Your task to perform on an android device: turn on bluetooth scan Image 0: 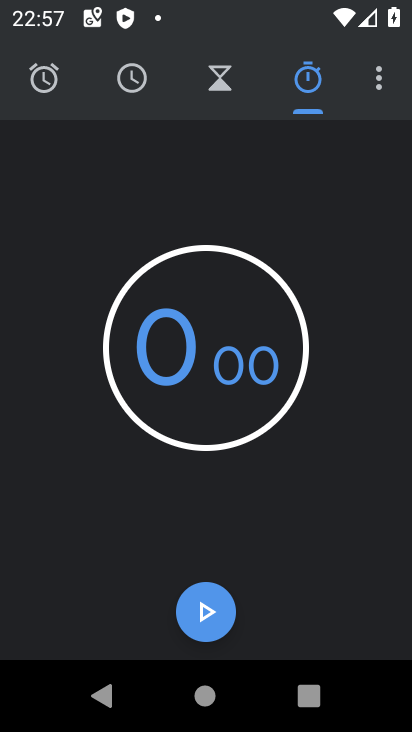
Step 0: press home button
Your task to perform on an android device: turn on bluetooth scan Image 1: 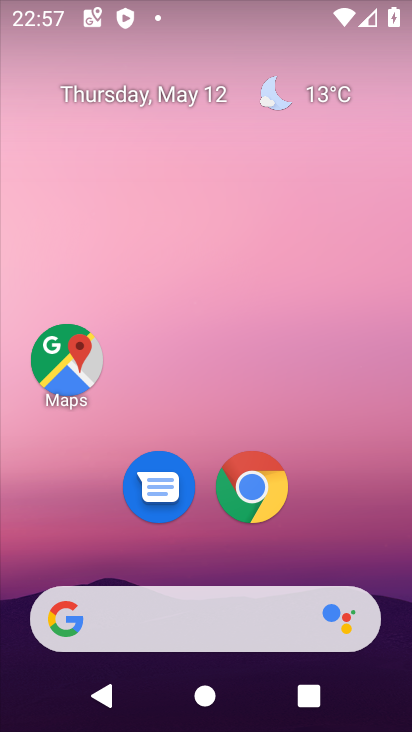
Step 1: drag from (194, 561) to (384, 312)
Your task to perform on an android device: turn on bluetooth scan Image 2: 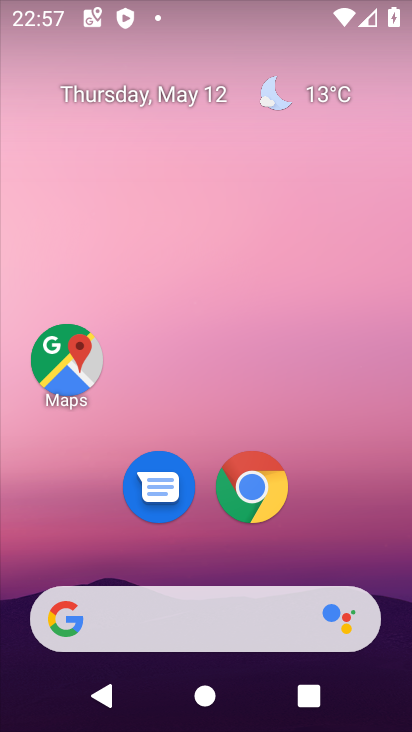
Step 2: click (351, 199)
Your task to perform on an android device: turn on bluetooth scan Image 3: 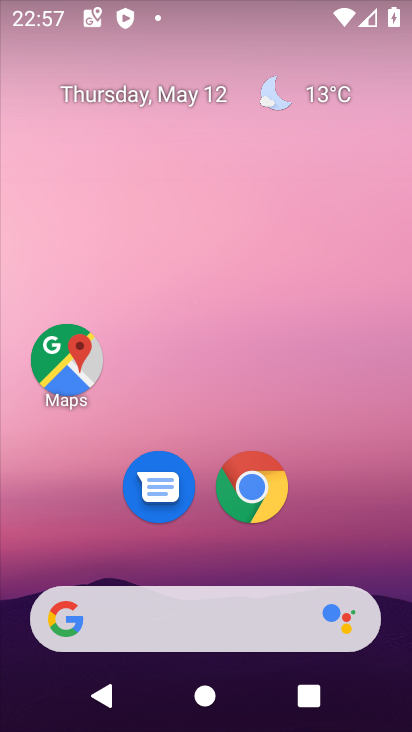
Step 3: drag from (212, 575) to (212, 121)
Your task to perform on an android device: turn on bluetooth scan Image 4: 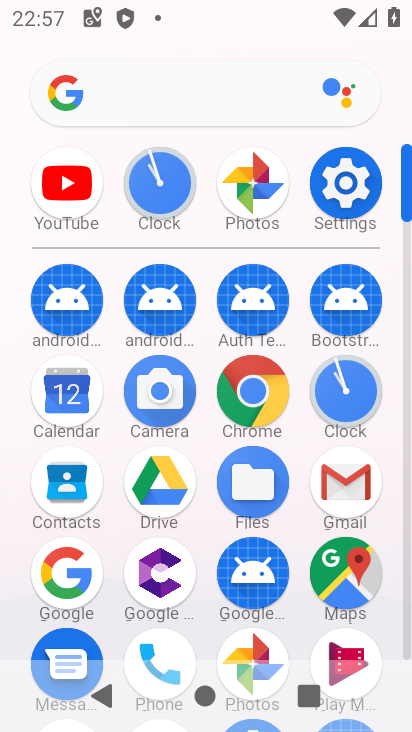
Step 4: click (334, 182)
Your task to perform on an android device: turn on bluetooth scan Image 5: 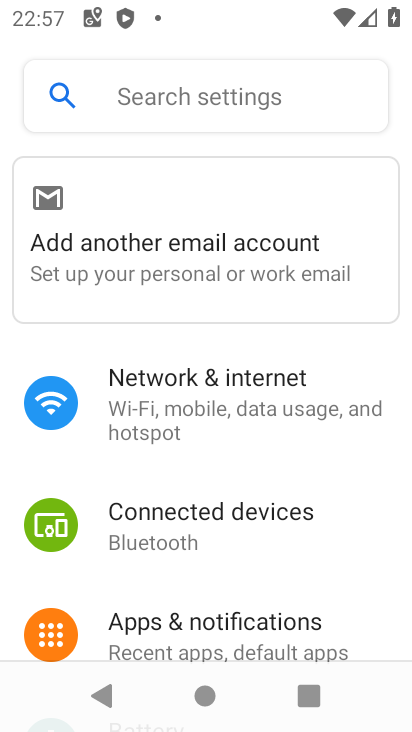
Step 5: drag from (142, 616) to (241, 93)
Your task to perform on an android device: turn on bluetooth scan Image 6: 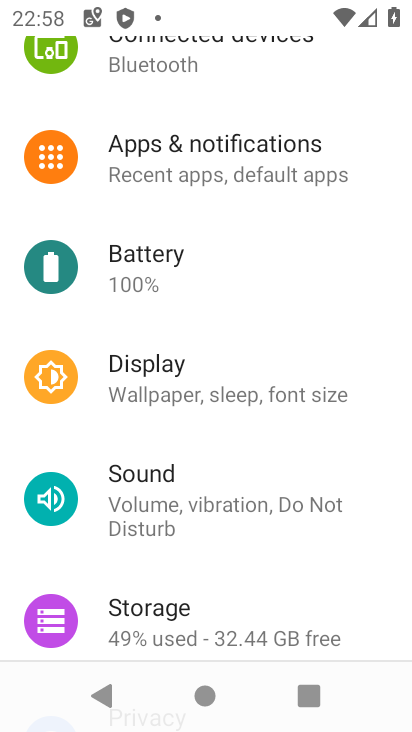
Step 6: drag from (145, 601) to (171, 225)
Your task to perform on an android device: turn on bluetooth scan Image 7: 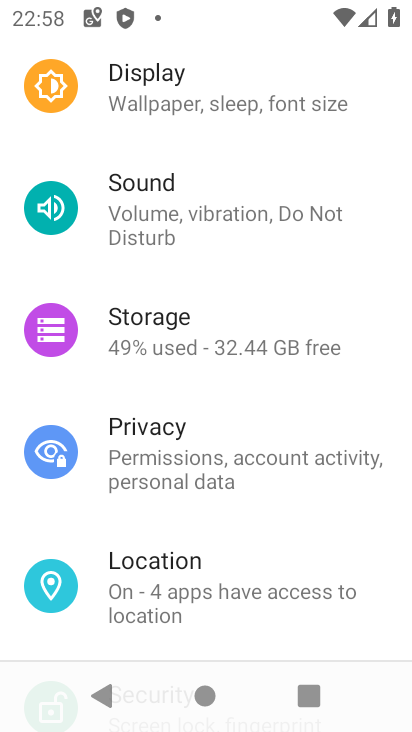
Step 7: click (175, 600)
Your task to perform on an android device: turn on bluetooth scan Image 8: 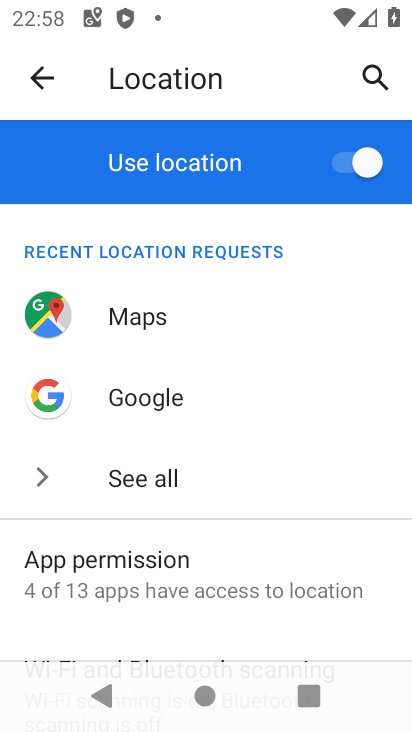
Step 8: drag from (211, 642) to (245, 231)
Your task to perform on an android device: turn on bluetooth scan Image 9: 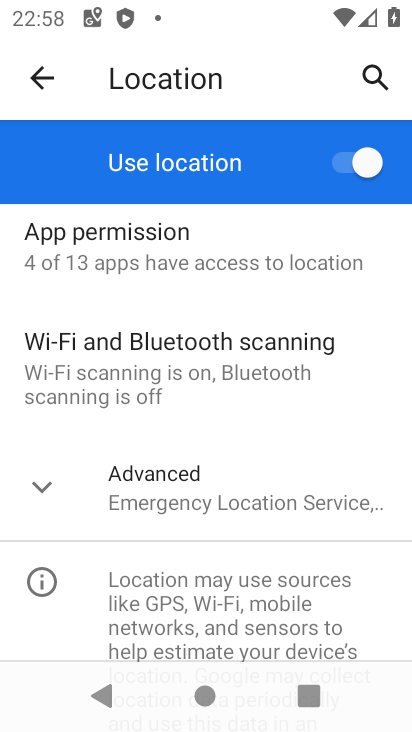
Step 9: click (208, 514)
Your task to perform on an android device: turn on bluetooth scan Image 10: 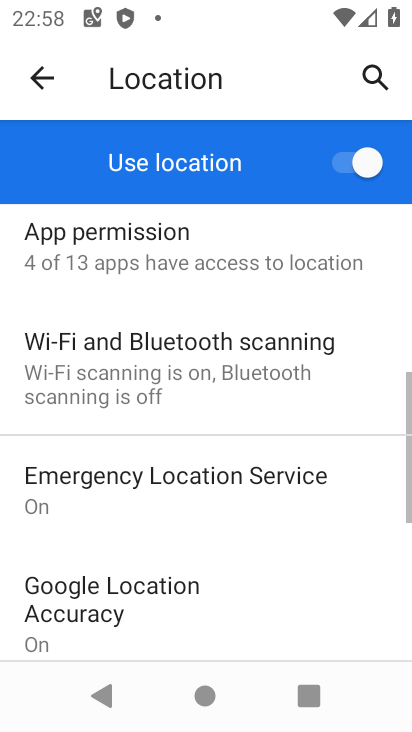
Step 10: click (187, 364)
Your task to perform on an android device: turn on bluetooth scan Image 11: 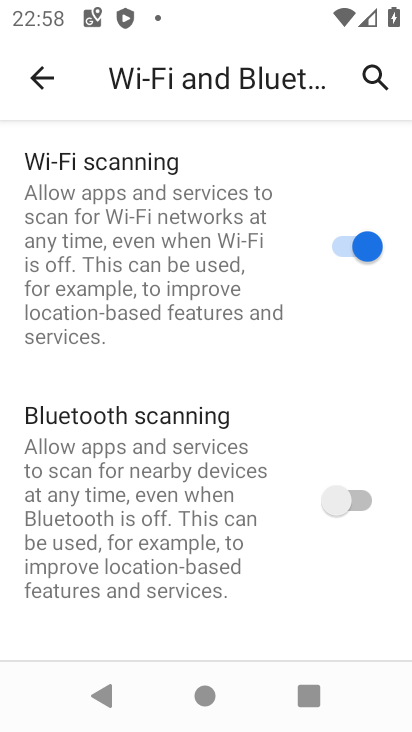
Step 11: click (358, 516)
Your task to perform on an android device: turn on bluetooth scan Image 12: 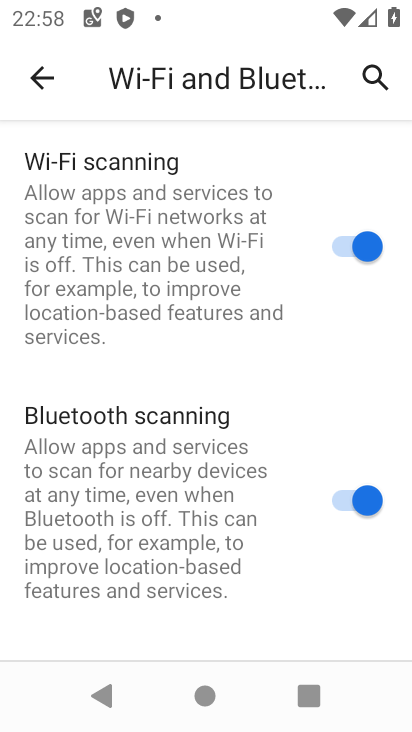
Step 12: task complete